Your task to perform on an android device: change notifications settings Image 0: 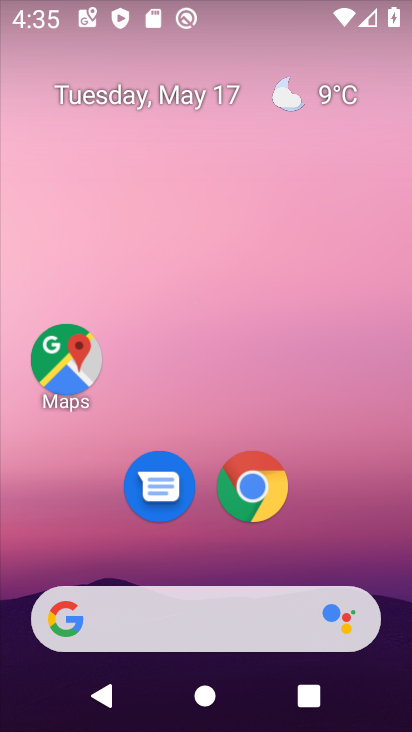
Step 0: drag from (351, 488) to (299, 73)
Your task to perform on an android device: change notifications settings Image 1: 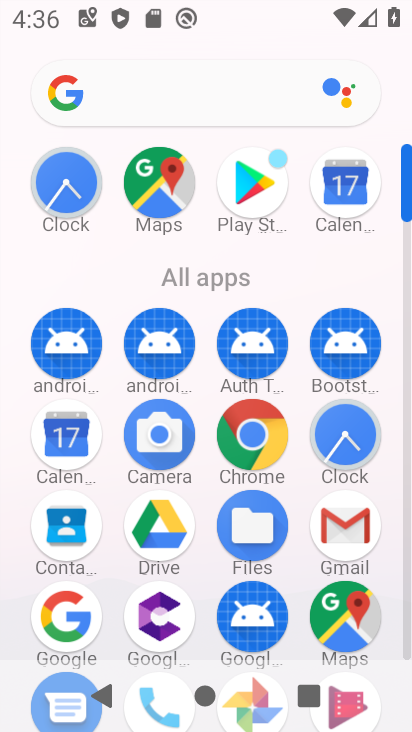
Step 1: click (407, 659)
Your task to perform on an android device: change notifications settings Image 2: 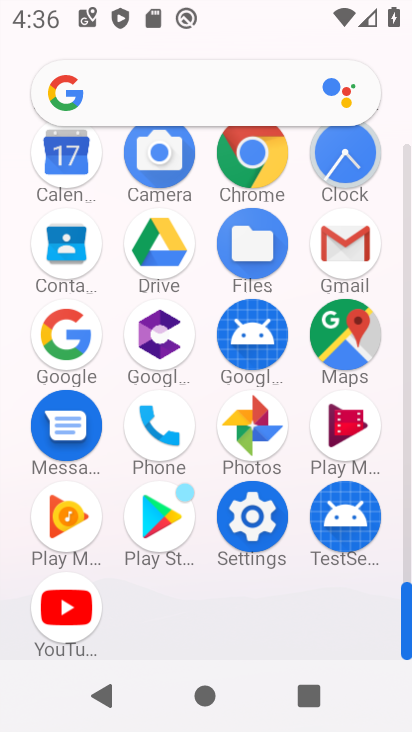
Step 2: click (259, 522)
Your task to perform on an android device: change notifications settings Image 3: 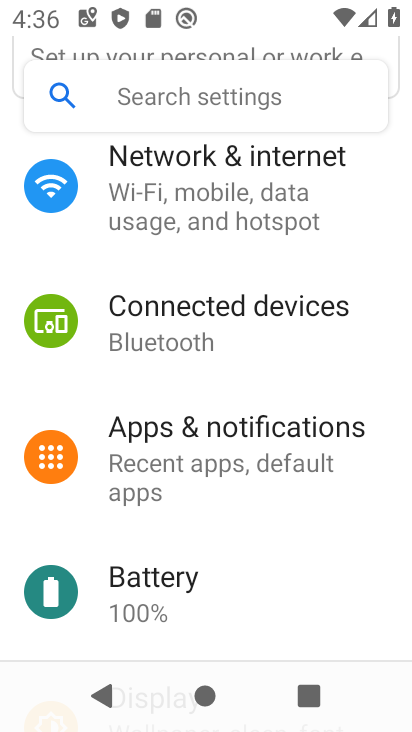
Step 3: click (265, 465)
Your task to perform on an android device: change notifications settings Image 4: 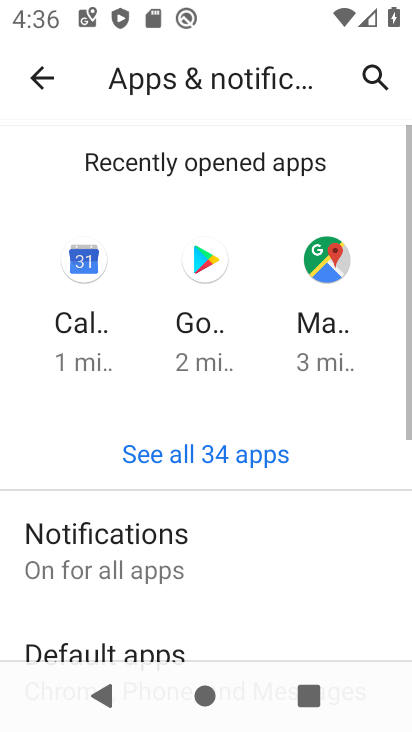
Step 4: click (261, 529)
Your task to perform on an android device: change notifications settings Image 5: 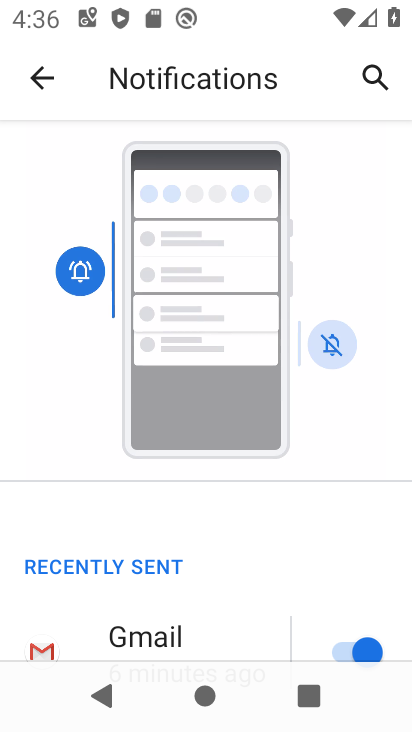
Step 5: drag from (233, 633) to (212, 35)
Your task to perform on an android device: change notifications settings Image 6: 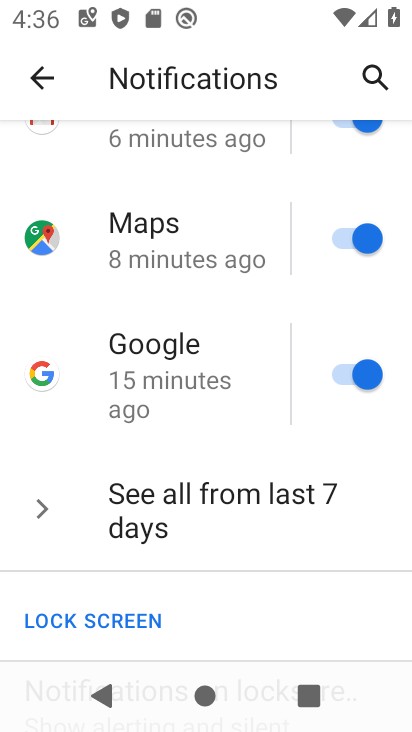
Step 6: drag from (232, 613) to (185, 212)
Your task to perform on an android device: change notifications settings Image 7: 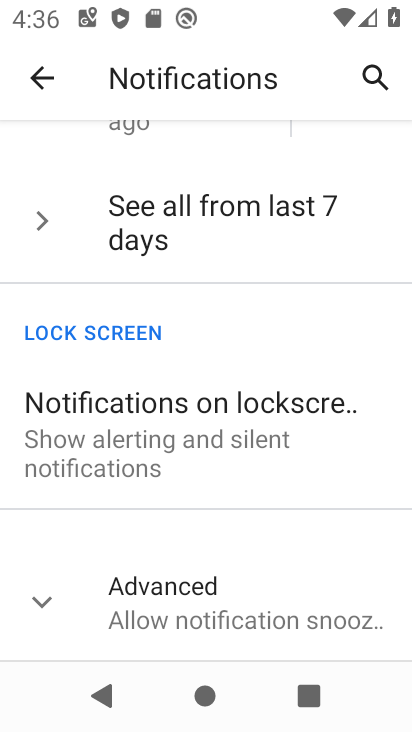
Step 7: click (248, 598)
Your task to perform on an android device: change notifications settings Image 8: 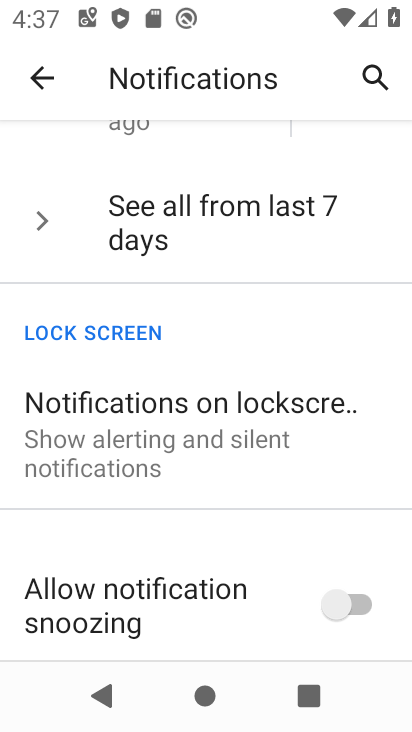
Step 8: drag from (264, 619) to (205, 335)
Your task to perform on an android device: change notifications settings Image 9: 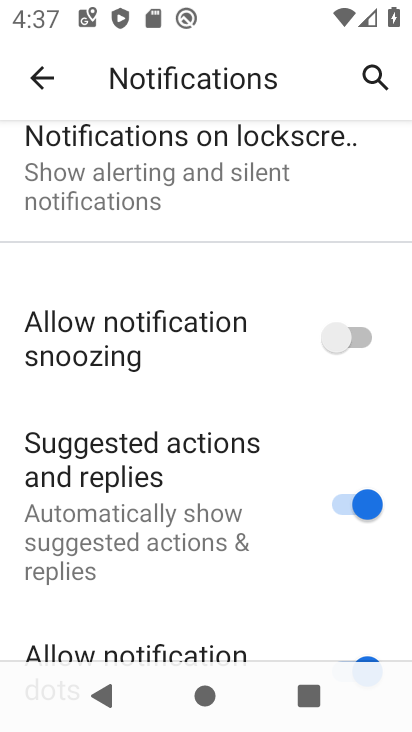
Step 9: click (355, 339)
Your task to perform on an android device: change notifications settings Image 10: 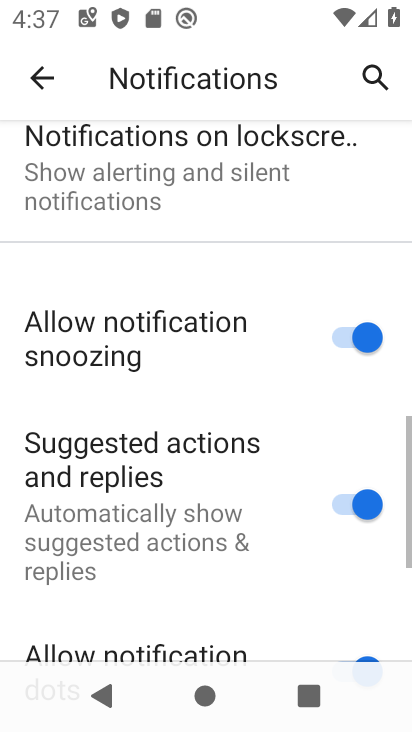
Step 10: click (352, 509)
Your task to perform on an android device: change notifications settings Image 11: 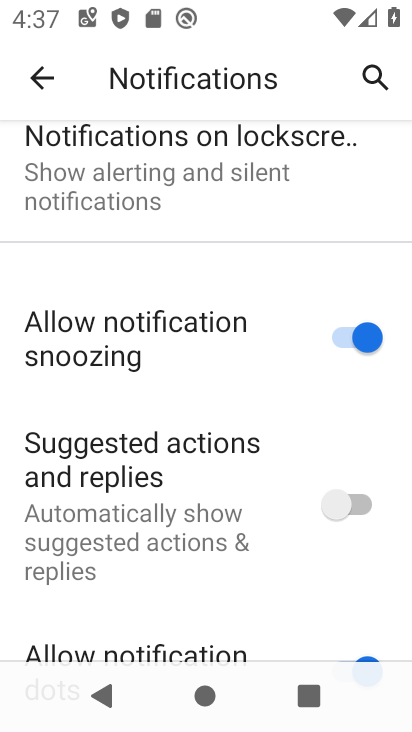
Step 11: drag from (266, 585) to (192, 200)
Your task to perform on an android device: change notifications settings Image 12: 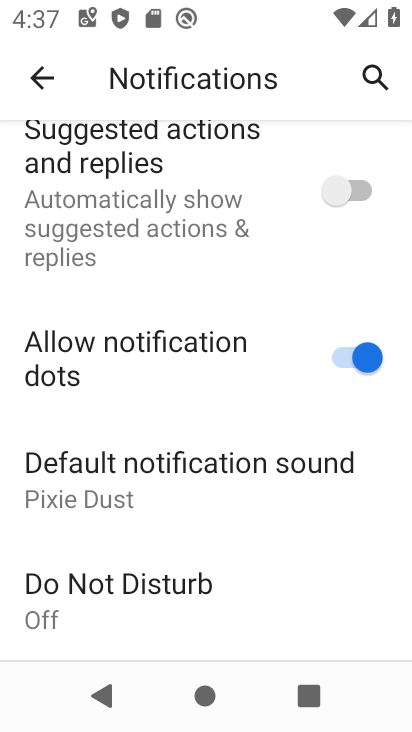
Step 12: click (353, 351)
Your task to perform on an android device: change notifications settings Image 13: 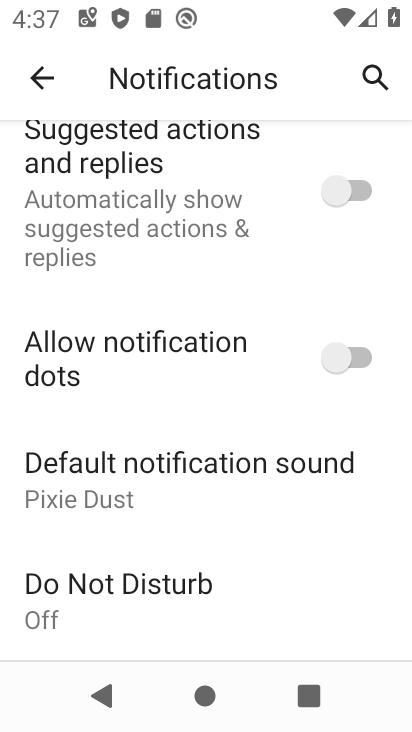
Step 13: task complete